Your task to perform on an android device: Open Google Chrome and click the shortcut for Amazon.com Image 0: 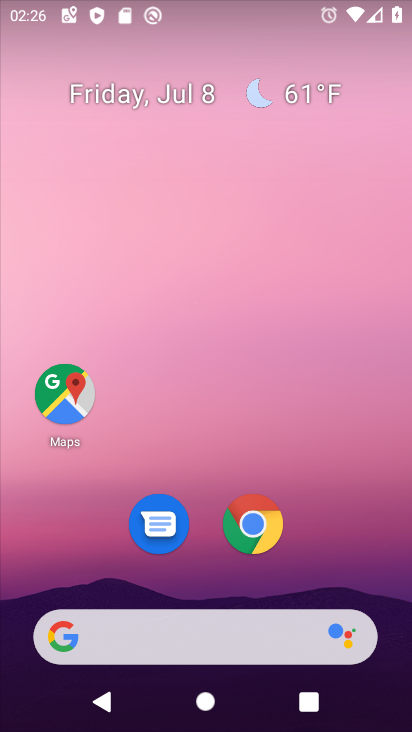
Step 0: click (263, 523)
Your task to perform on an android device: Open Google Chrome and click the shortcut for Amazon.com Image 1: 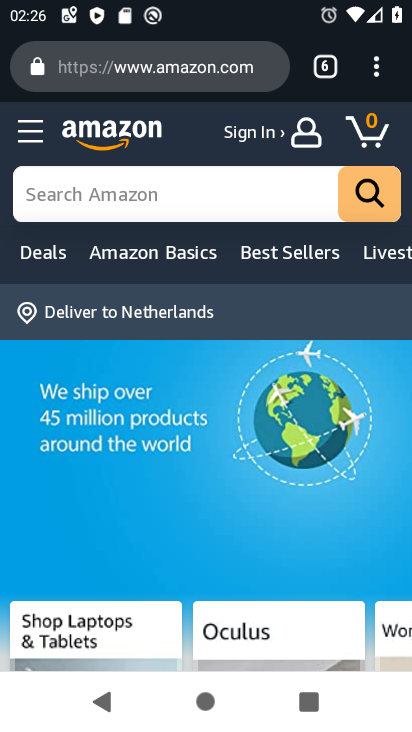
Step 1: click (377, 72)
Your task to perform on an android device: Open Google Chrome and click the shortcut for Amazon.com Image 2: 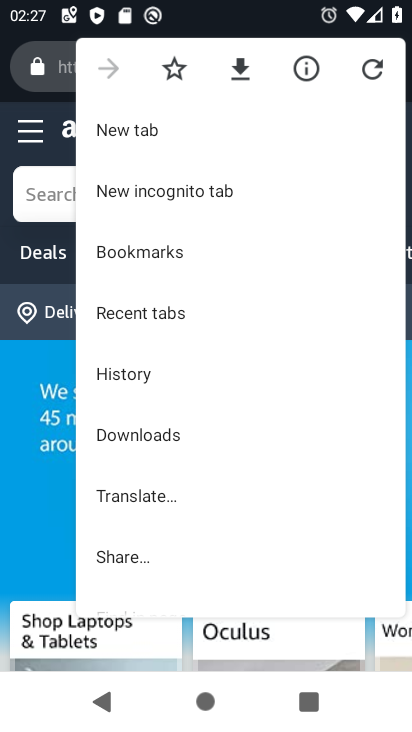
Step 2: click (300, 124)
Your task to perform on an android device: Open Google Chrome and click the shortcut for Amazon.com Image 3: 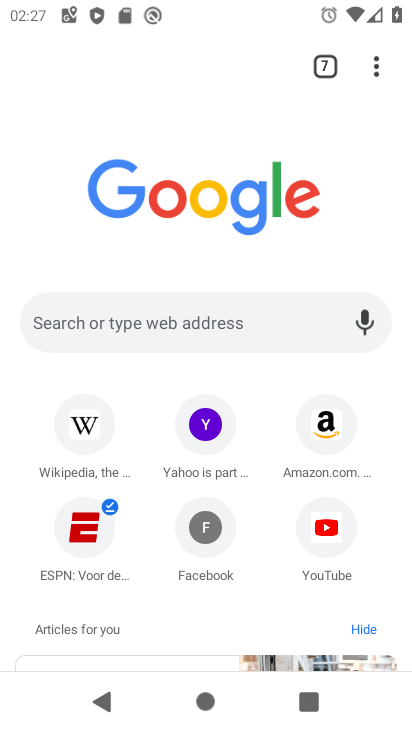
Step 3: click (329, 420)
Your task to perform on an android device: Open Google Chrome and click the shortcut for Amazon.com Image 4: 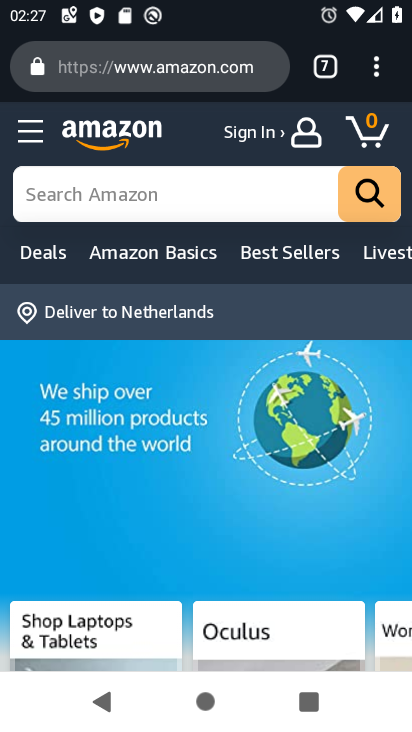
Step 4: task complete